Your task to perform on an android device: change notification settings in the gmail app Image 0: 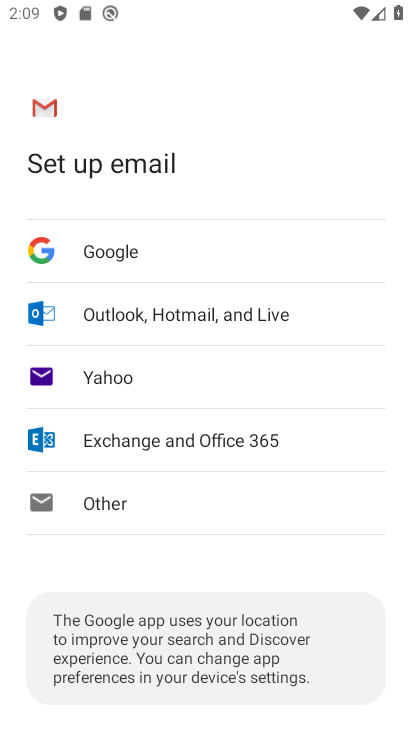
Step 0: press home button
Your task to perform on an android device: change notification settings in the gmail app Image 1: 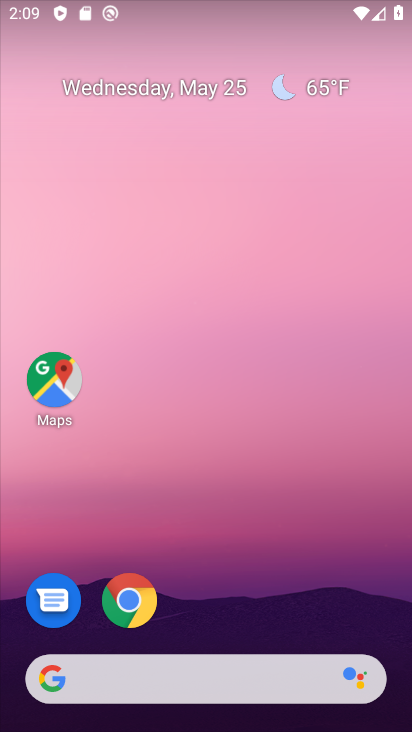
Step 1: drag from (281, 535) to (322, 181)
Your task to perform on an android device: change notification settings in the gmail app Image 2: 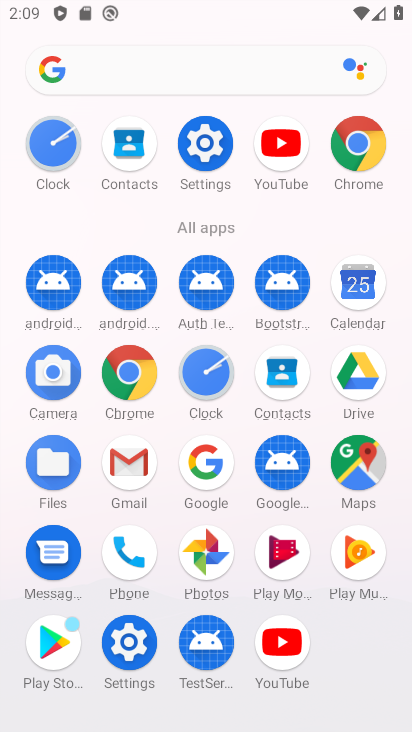
Step 2: click (127, 467)
Your task to perform on an android device: change notification settings in the gmail app Image 3: 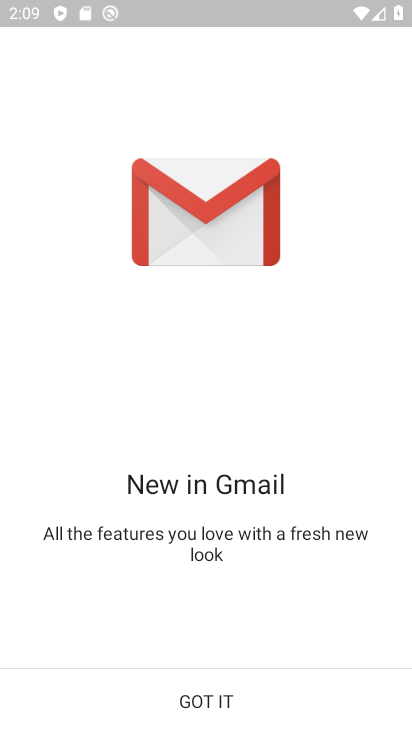
Step 3: click (223, 693)
Your task to perform on an android device: change notification settings in the gmail app Image 4: 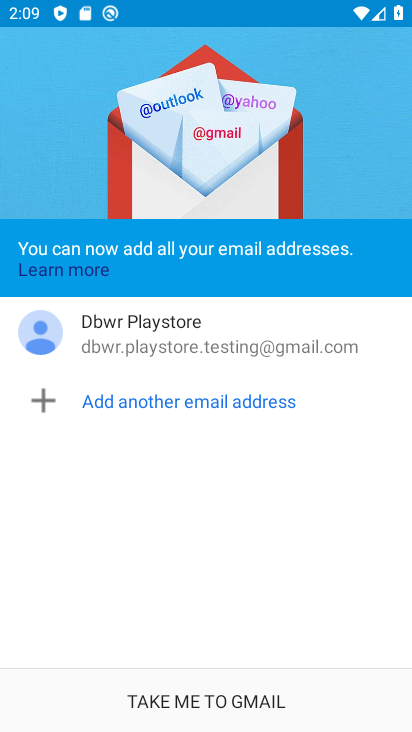
Step 4: click (218, 694)
Your task to perform on an android device: change notification settings in the gmail app Image 5: 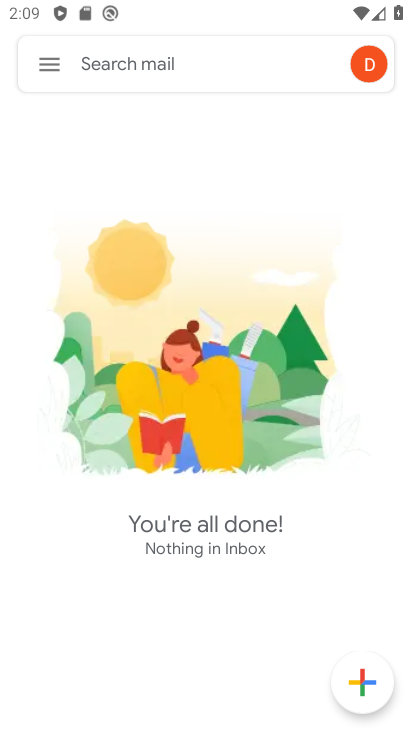
Step 5: click (42, 55)
Your task to perform on an android device: change notification settings in the gmail app Image 6: 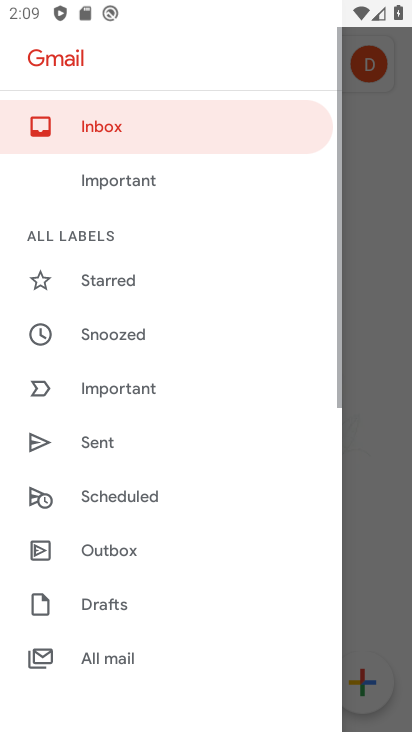
Step 6: drag from (123, 641) to (212, 174)
Your task to perform on an android device: change notification settings in the gmail app Image 7: 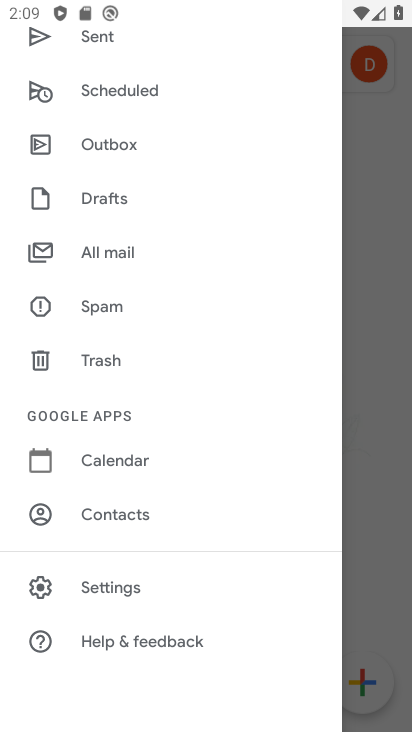
Step 7: click (129, 576)
Your task to perform on an android device: change notification settings in the gmail app Image 8: 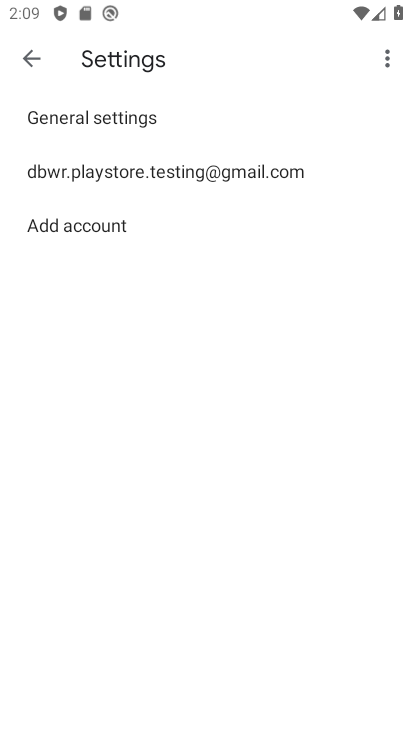
Step 8: click (168, 159)
Your task to perform on an android device: change notification settings in the gmail app Image 9: 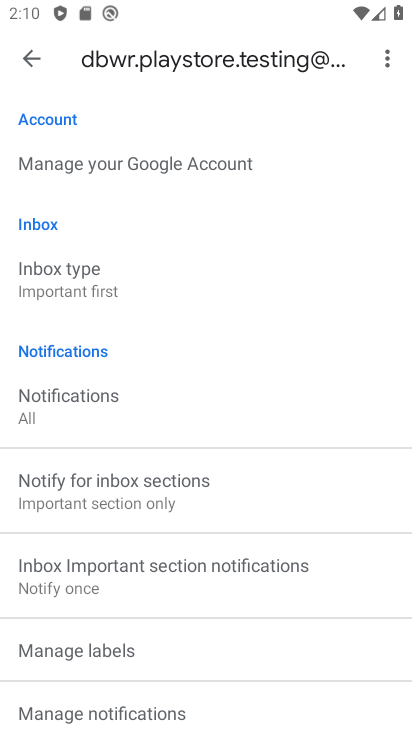
Step 9: click (103, 714)
Your task to perform on an android device: change notification settings in the gmail app Image 10: 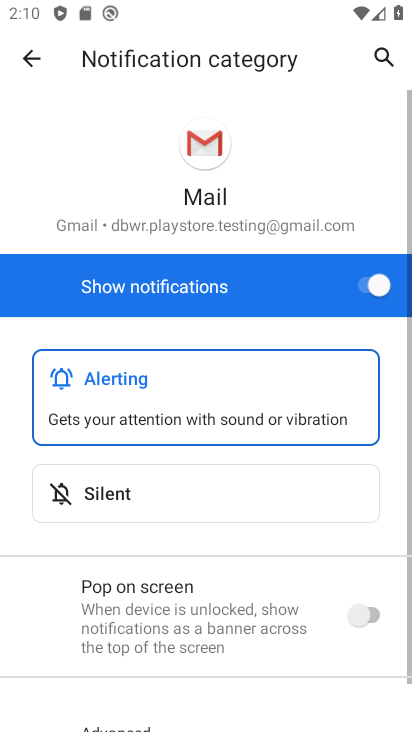
Step 10: click (381, 282)
Your task to perform on an android device: change notification settings in the gmail app Image 11: 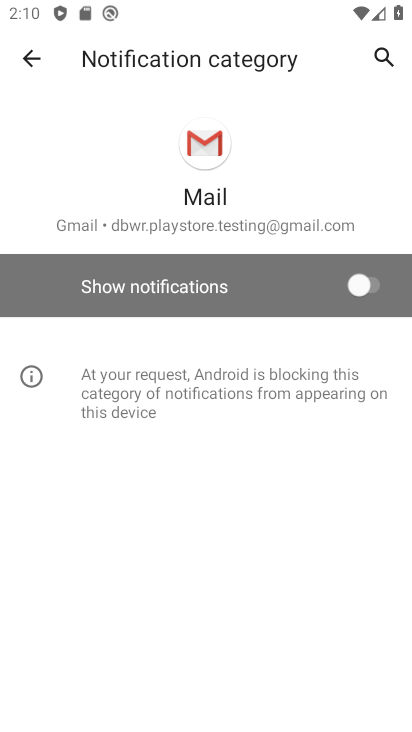
Step 11: task complete